Your task to perform on an android device: change timer sound Image 0: 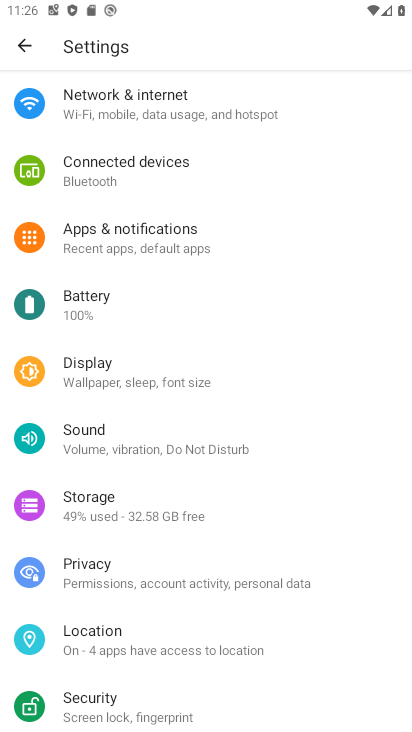
Step 0: press back button
Your task to perform on an android device: change timer sound Image 1: 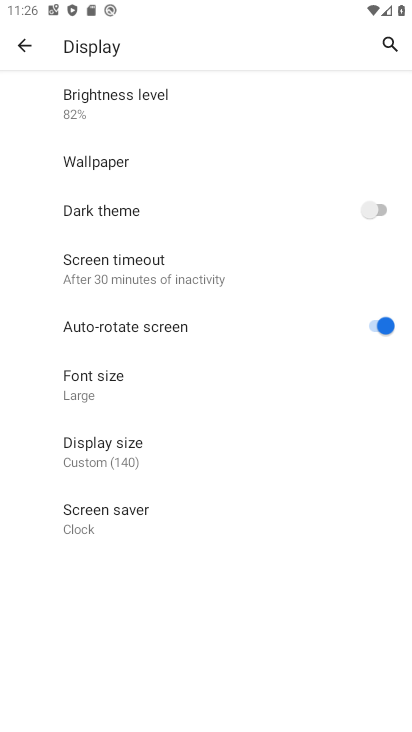
Step 1: press back button
Your task to perform on an android device: change timer sound Image 2: 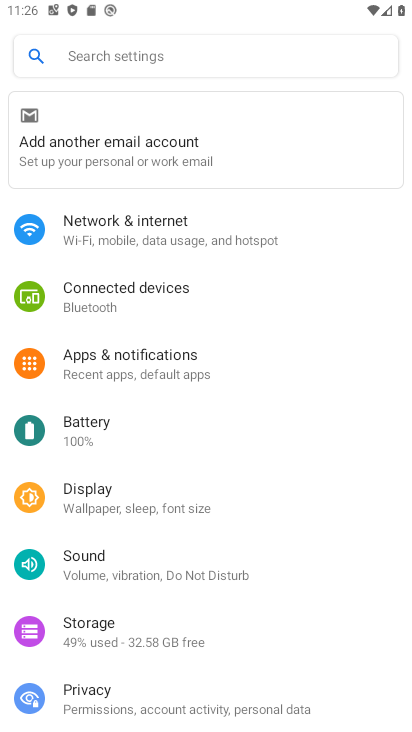
Step 2: press back button
Your task to perform on an android device: change timer sound Image 3: 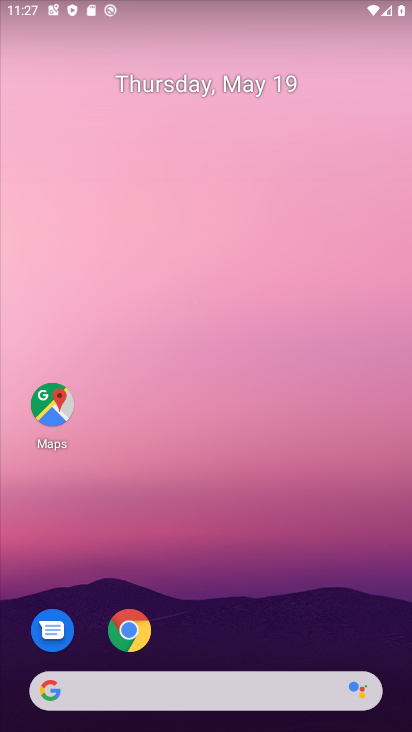
Step 3: drag from (233, 615) to (188, 212)
Your task to perform on an android device: change timer sound Image 4: 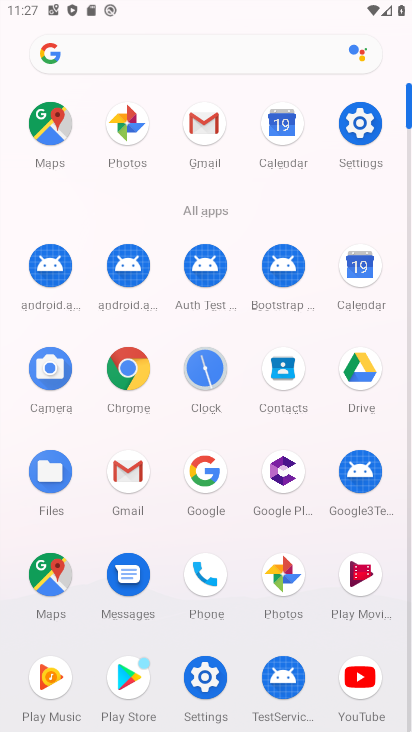
Step 4: click (203, 369)
Your task to perform on an android device: change timer sound Image 5: 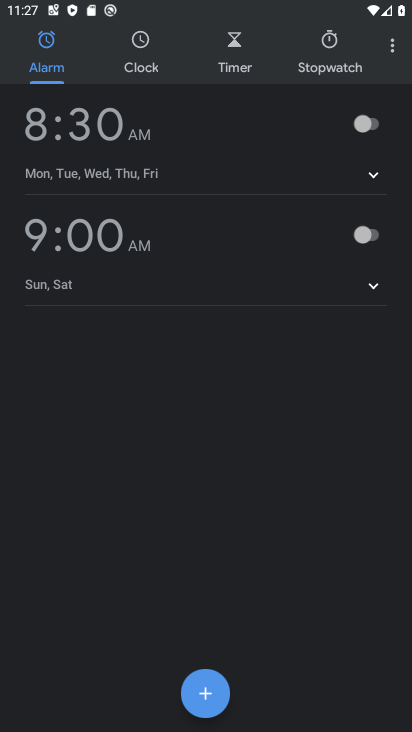
Step 5: click (394, 49)
Your task to perform on an android device: change timer sound Image 6: 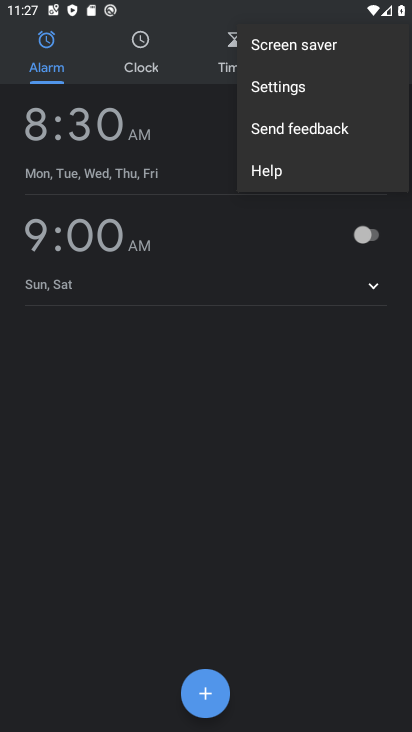
Step 6: click (292, 84)
Your task to perform on an android device: change timer sound Image 7: 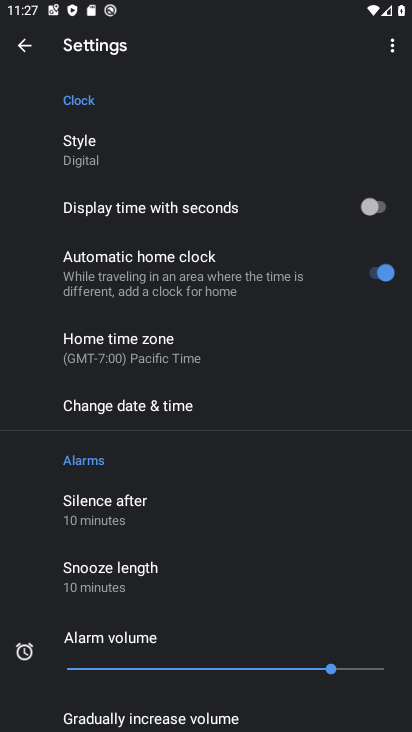
Step 7: drag from (204, 489) to (245, 399)
Your task to perform on an android device: change timer sound Image 8: 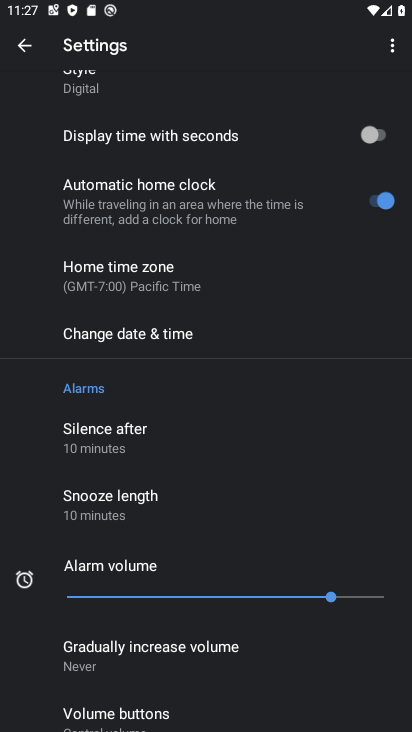
Step 8: drag from (196, 614) to (202, 529)
Your task to perform on an android device: change timer sound Image 9: 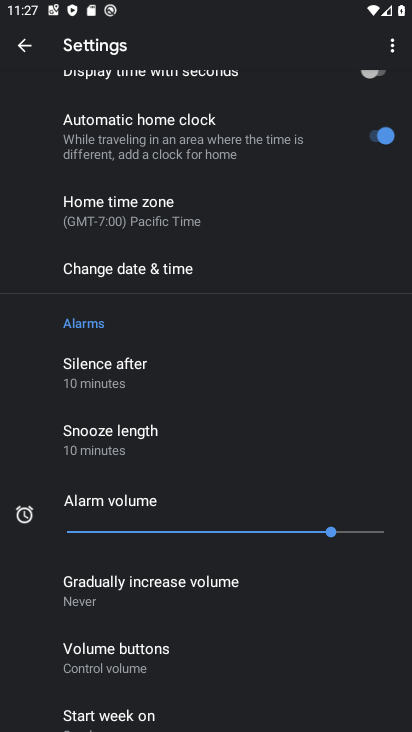
Step 9: drag from (195, 648) to (216, 527)
Your task to perform on an android device: change timer sound Image 10: 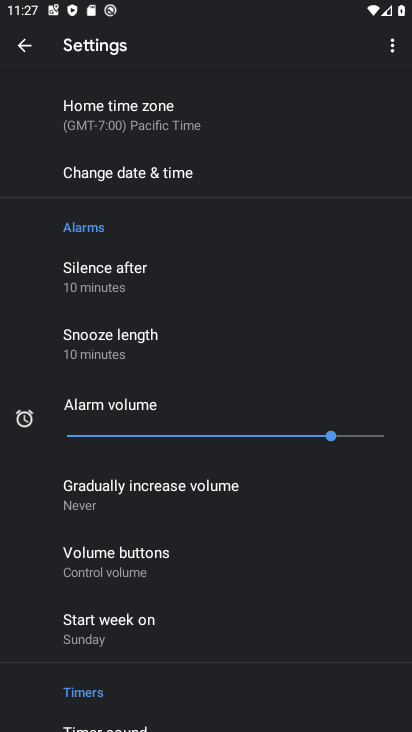
Step 10: drag from (202, 626) to (235, 488)
Your task to perform on an android device: change timer sound Image 11: 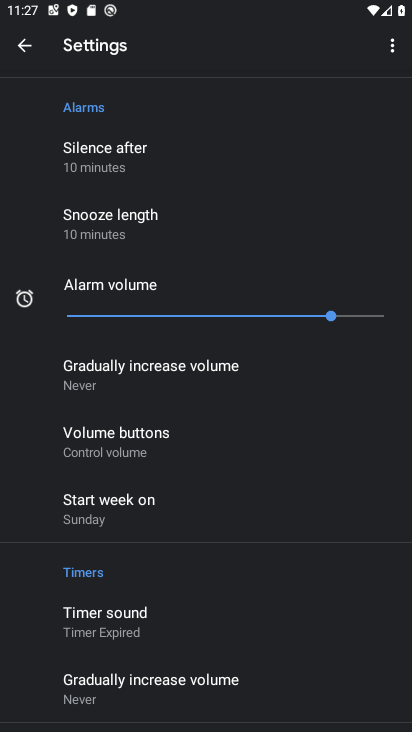
Step 11: click (130, 617)
Your task to perform on an android device: change timer sound Image 12: 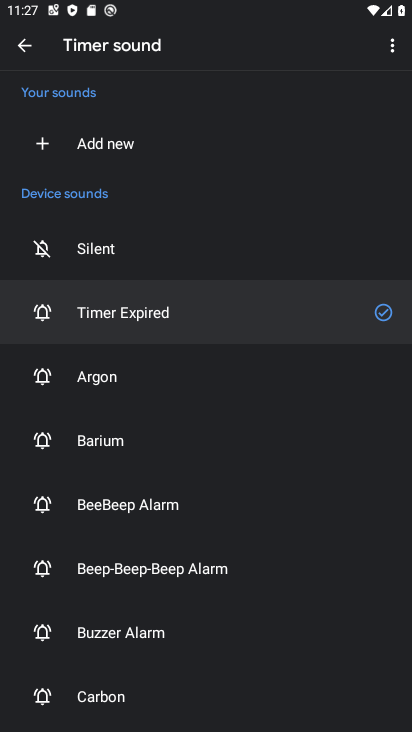
Step 12: drag from (131, 534) to (182, 420)
Your task to perform on an android device: change timer sound Image 13: 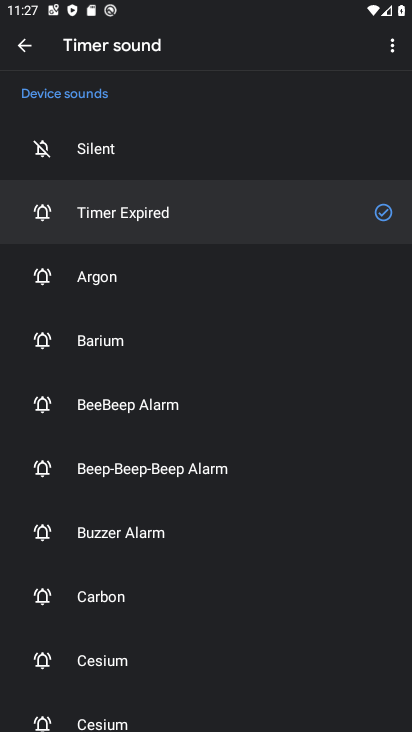
Step 13: drag from (137, 584) to (193, 463)
Your task to perform on an android device: change timer sound Image 14: 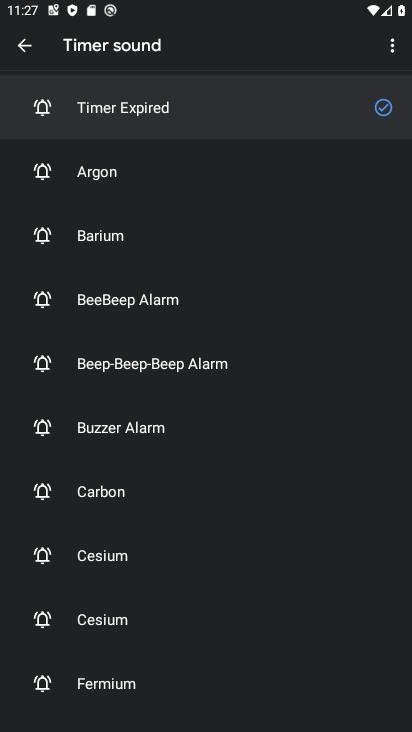
Step 14: click (124, 568)
Your task to perform on an android device: change timer sound Image 15: 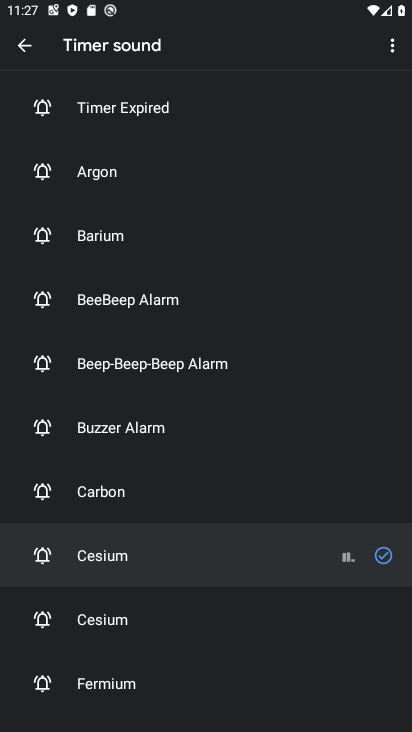
Step 15: task complete